Your task to perform on an android device: toggle improve location accuracy Image 0: 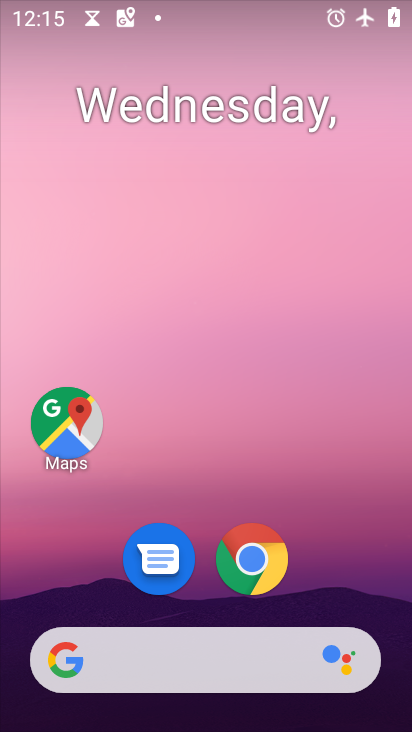
Step 0: drag from (341, 590) to (317, 12)
Your task to perform on an android device: toggle improve location accuracy Image 1: 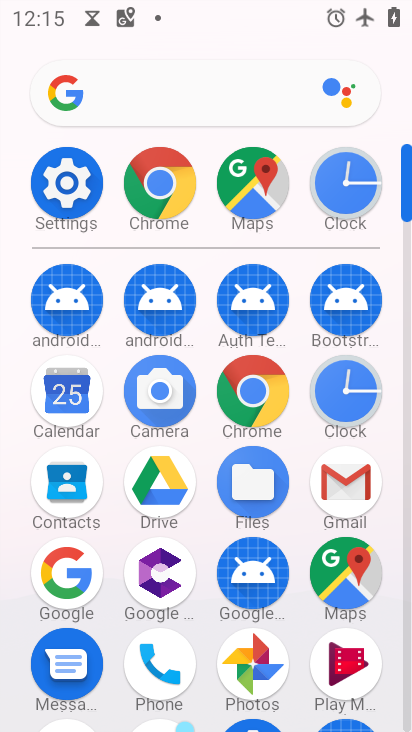
Step 1: click (30, 183)
Your task to perform on an android device: toggle improve location accuracy Image 2: 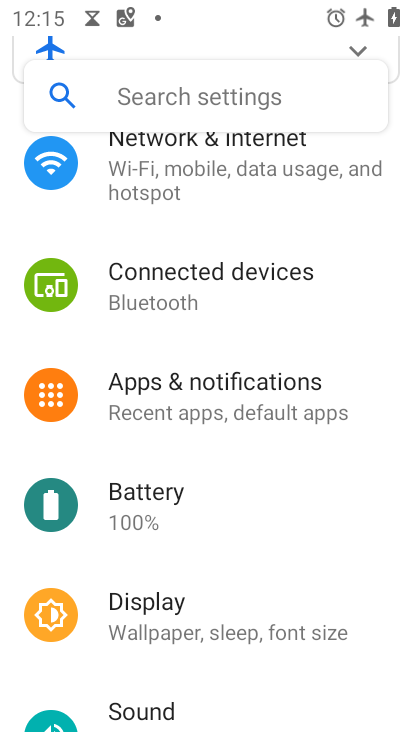
Step 2: drag from (172, 534) to (168, 130)
Your task to perform on an android device: toggle improve location accuracy Image 3: 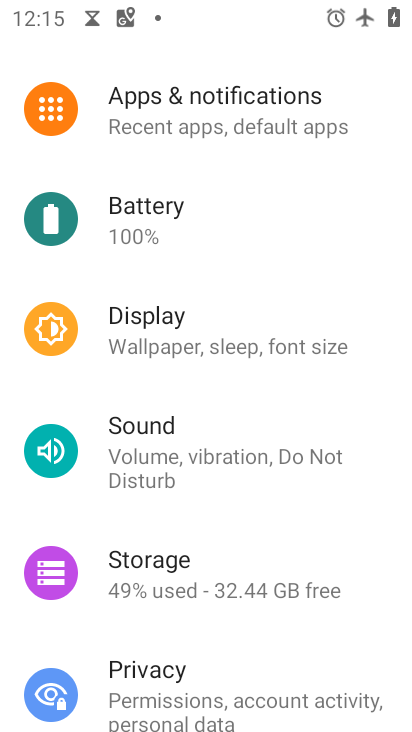
Step 3: drag from (241, 593) to (239, 98)
Your task to perform on an android device: toggle improve location accuracy Image 4: 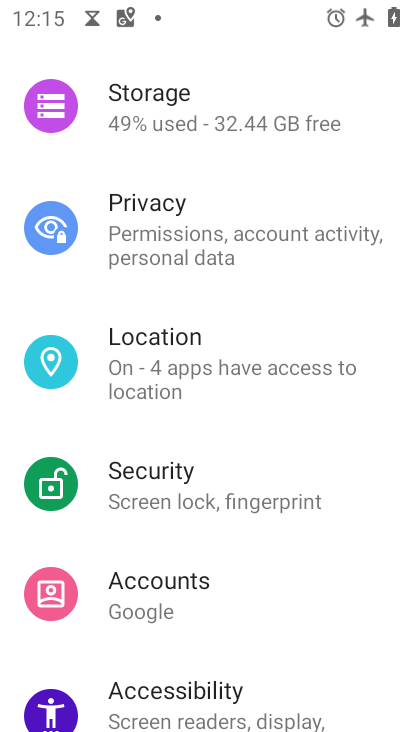
Step 4: click (165, 391)
Your task to perform on an android device: toggle improve location accuracy Image 5: 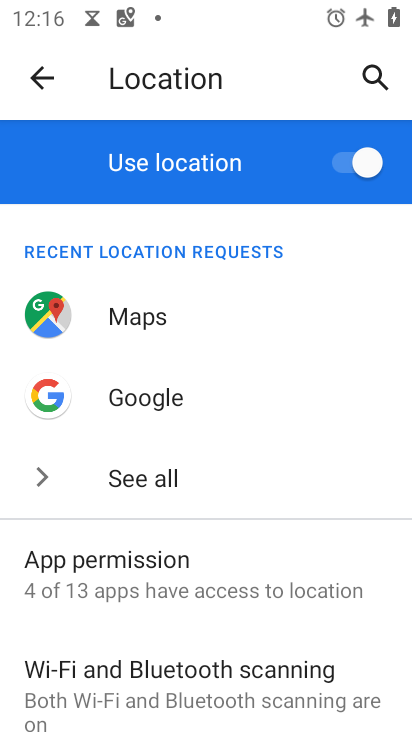
Step 5: drag from (246, 629) to (318, 273)
Your task to perform on an android device: toggle improve location accuracy Image 6: 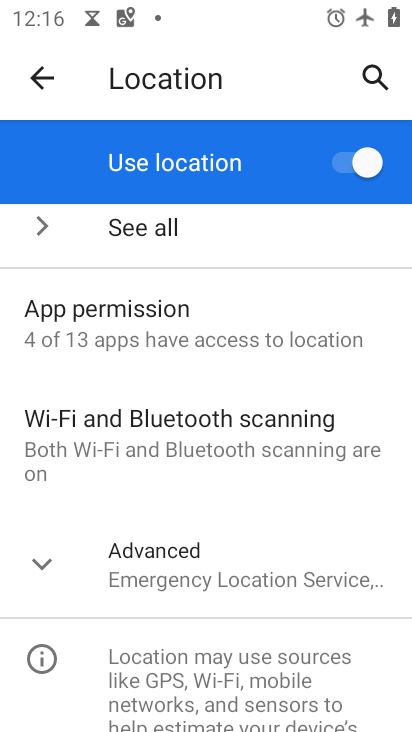
Step 6: drag from (247, 653) to (176, 200)
Your task to perform on an android device: toggle improve location accuracy Image 7: 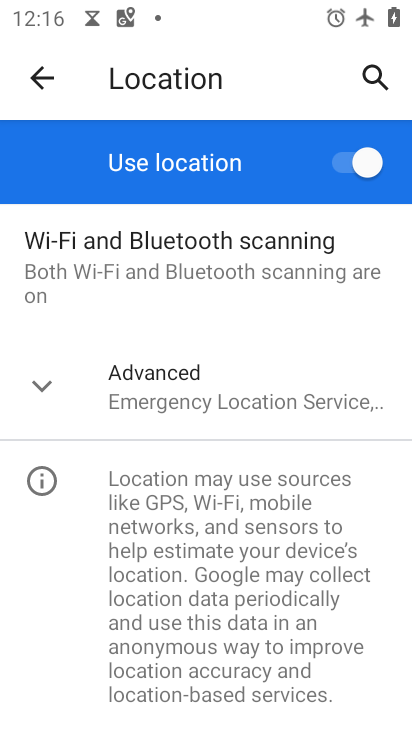
Step 7: click (149, 392)
Your task to perform on an android device: toggle improve location accuracy Image 8: 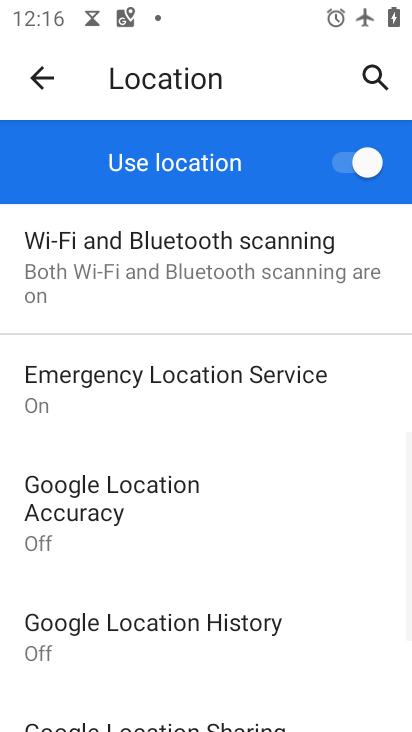
Step 8: click (92, 513)
Your task to perform on an android device: toggle improve location accuracy Image 9: 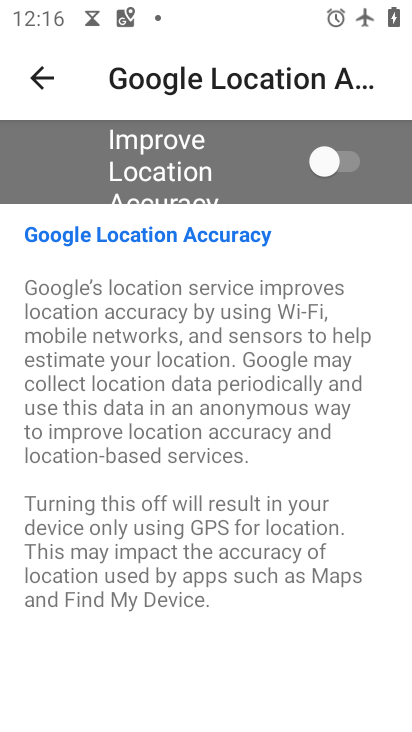
Step 9: click (342, 167)
Your task to perform on an android device: toggle improve location accuracy Image 10: 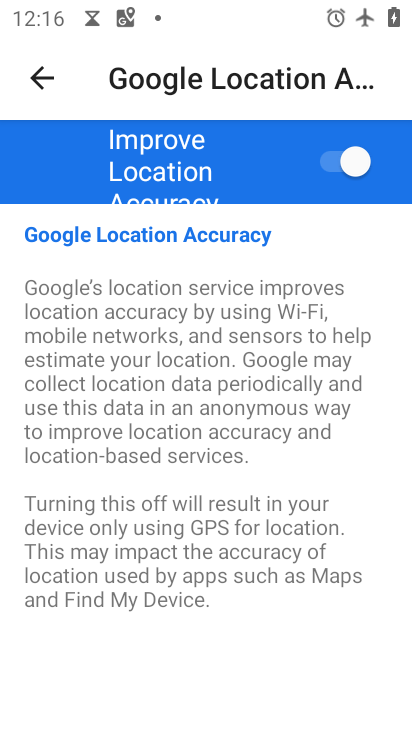
Step 10: task complete